Your task to perform on an android device: When is my next meeting? Image 0: 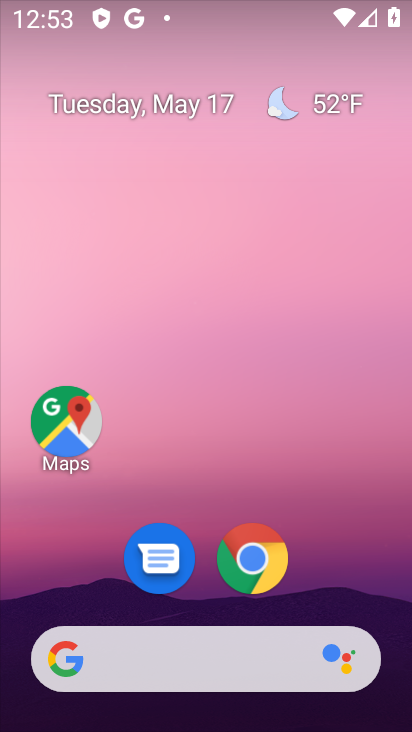
Step 0: drag from (360, 586) to (380, 206)
Your task to perform on an android device: When is my next meeting? Image 1: 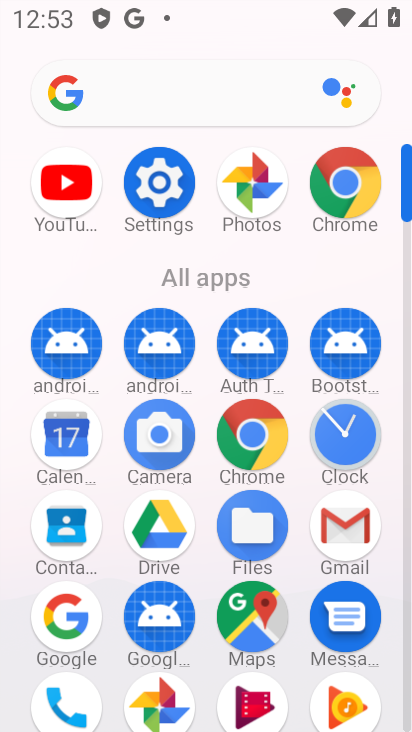
Step 1: click (71, 443)
Your task to perform on an android device: When is my next meeting? Image 2: 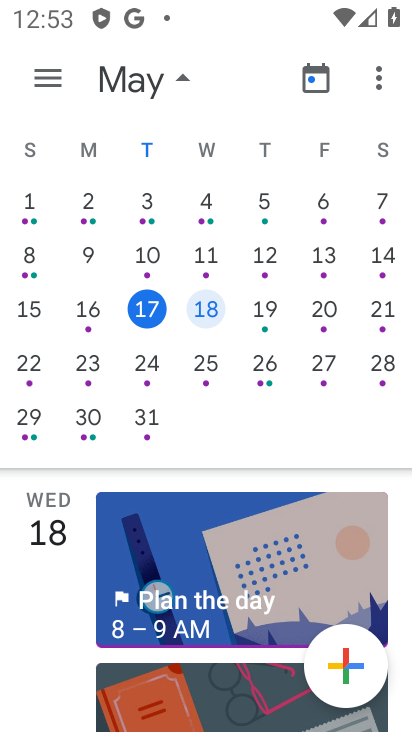
Step 2: click (221, 600)
Your task to perform on an android device: When is my next meeting? Image 3: 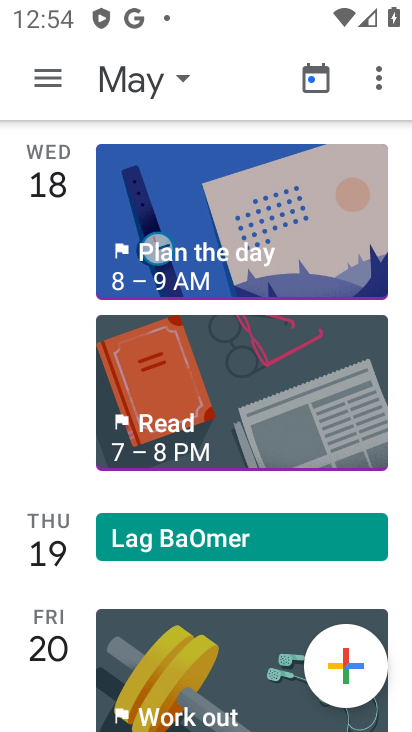
Step 3: click (216, 353)
Your task to perform on an android device: When is my next meeting? Image 4: 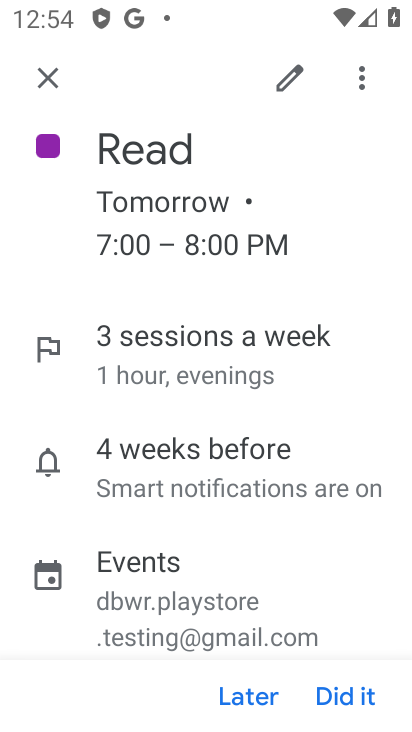
Step 4: task complete